Your task to perform on an android device: Open sound settings Image 0: 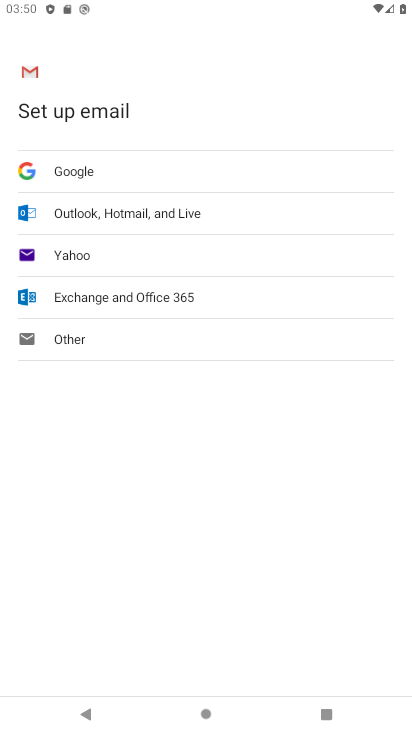
Step 0: press home button
Your task to perform on an android device: Open sound settings Image 1: 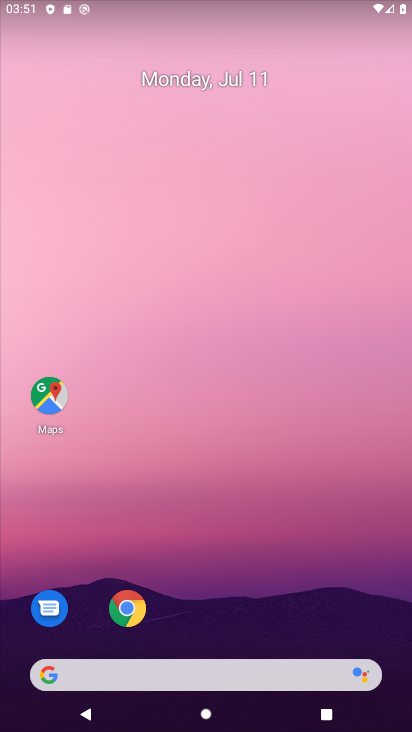
Step 1: drag from (241, 161) to (244, 111)
Your task to perform on an android device: Open sound settings Image 2: 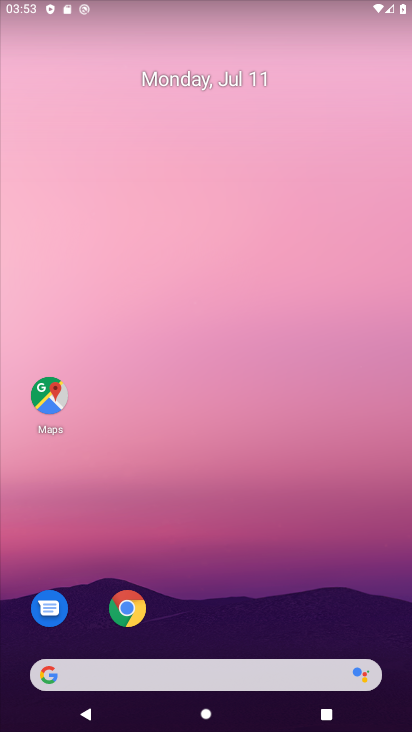
Step 2: drag from (167, 702) to (70, 111)
Your task to perform on an android device: Open sound settings Image 3: 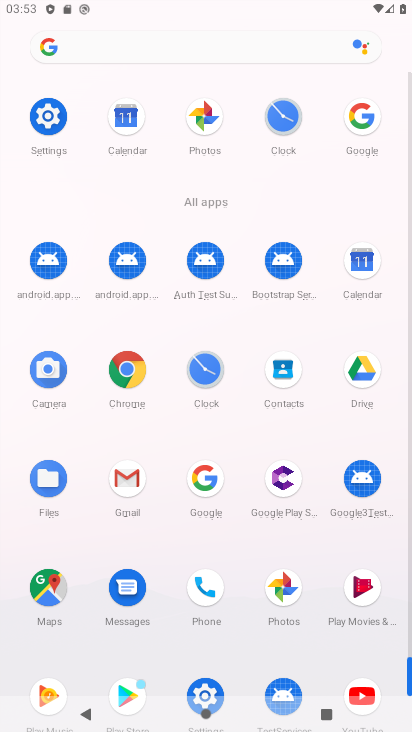
Step 3: click (40, 117)
Your task to perform on an android device: Open sound settings Image 4: 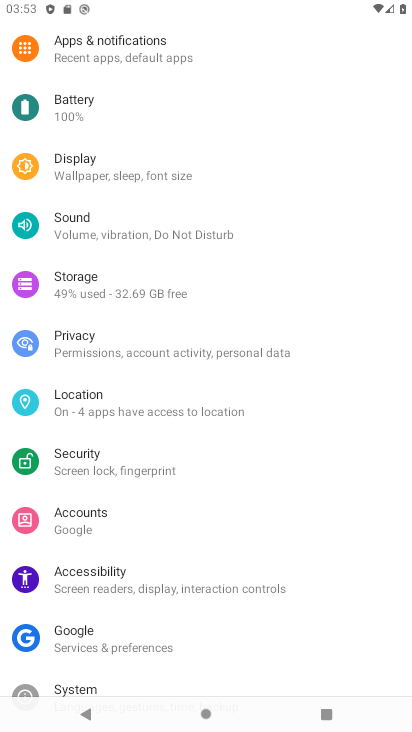
Step 4: click (136, 229)
Your task to perform on an android device: Open sound settings Image 5: 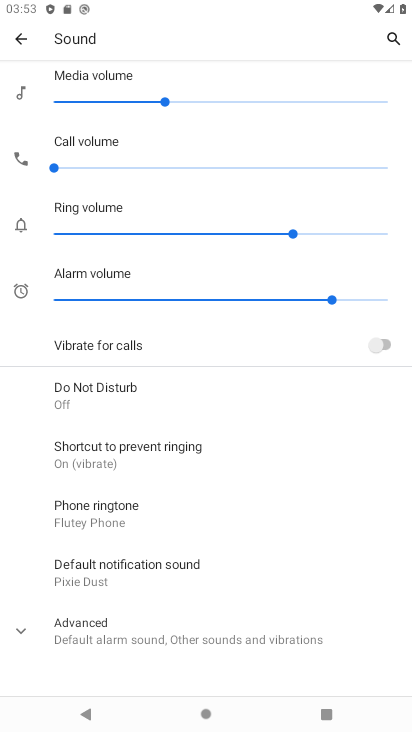
Step 5: task complete